Your task to perform on an android device: delete the emails in spam in the gmail app Image 0: 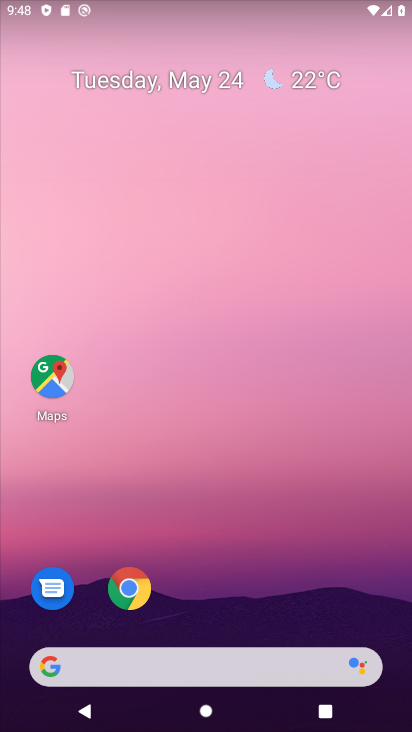
Step 0: drag from (185, 626) to (245, 31)
Your task to perform on an android device: delete the emails in spam in the gmail app Image 1: 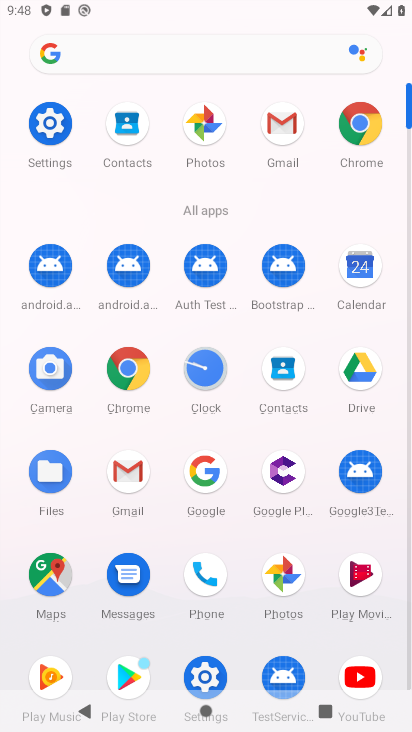
Step 1: click (277, 129)
Your task to perform on an android device: delete the emails in spam in the gmail app Image 2: 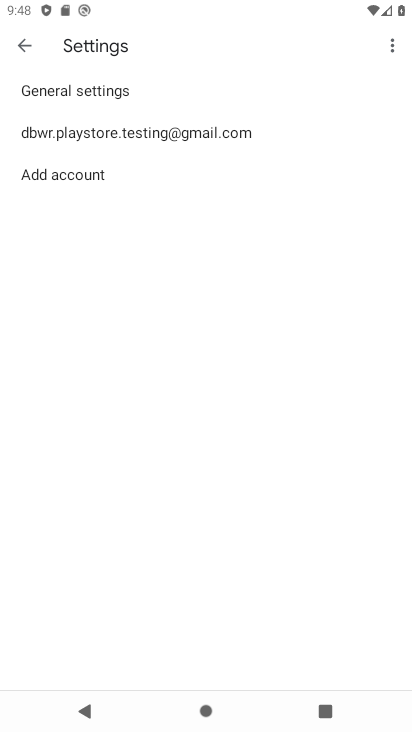
Step 2: click (278, 133)
Your task to perform on an android device: delete the emails in spam in the gmail app Image 3: 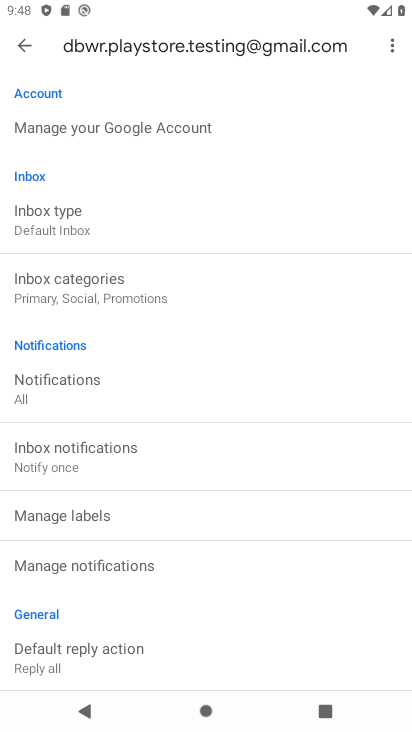
Step 3: click (17, 39)
Your task to perform on an android device: delete the emails in spam in the gmail app Image 4: 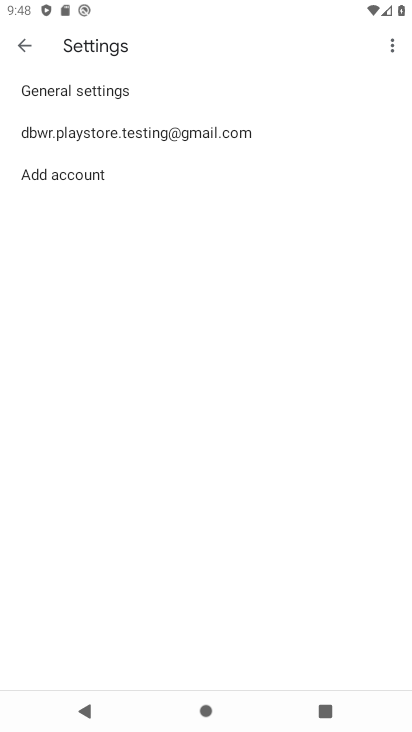
Step 4: click (17, 39)
Your task to perform on an android device: delete the emails in spam in the gmail app Image 5: 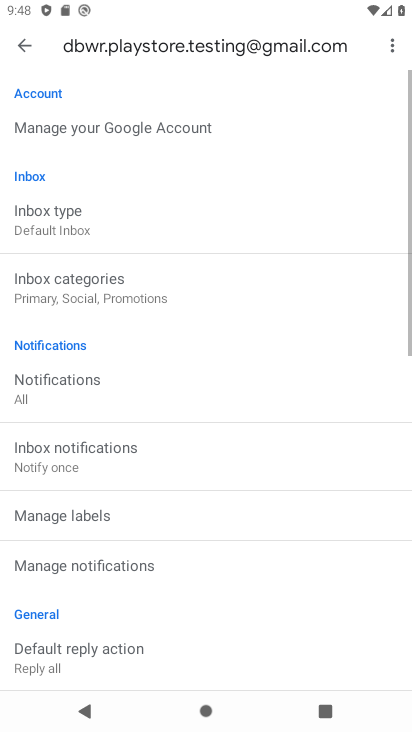
Step 5: click (28, 53)
Your task to perform on an android device: delete the emails in spam in the gmail app Image 6: 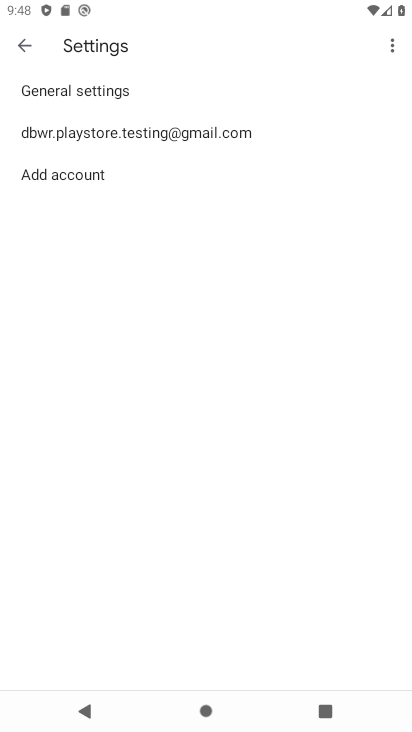
Step 6: click (28, 53)
Your task to perform on an android device: delete the emails in spam in the gmail app Image 7: 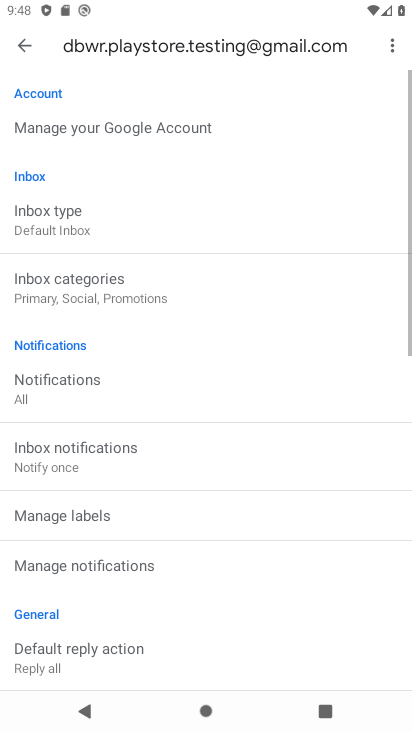
Step 7: click (28, 53)
Your task to perform on an android device: delete the emails in spam in the gmail app Image 8: 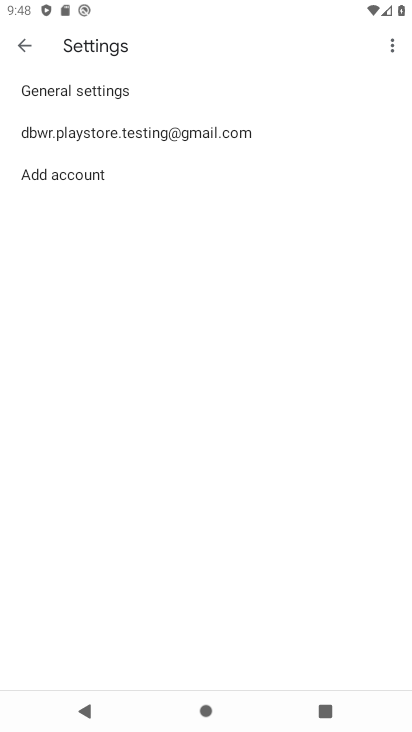
Step 8: click (28, 53)
Your task to perform on an android device: delete the emails in spam in the gmail app Image 9: 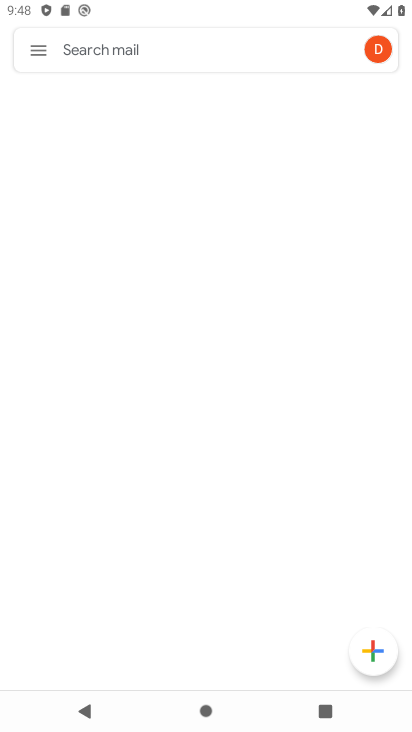
Step 9: click (28, 53)
Your task to perform on an android device: delete the emails in spam in the gmail app Image 10: 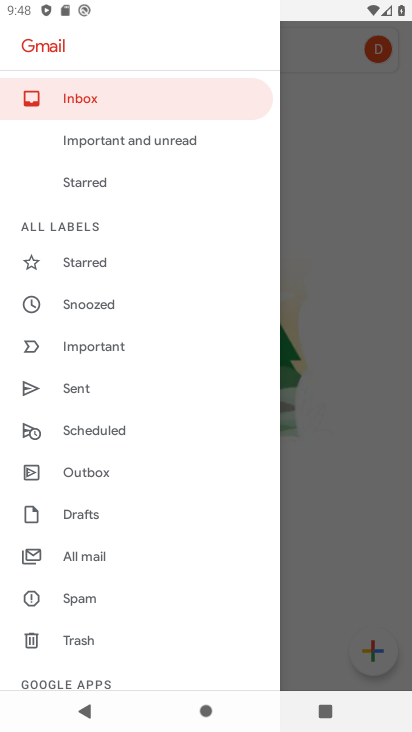
Step 10: click (89, 605)
Your task to perform on an android device: delete the emails in spam in the gmail app Image 11: 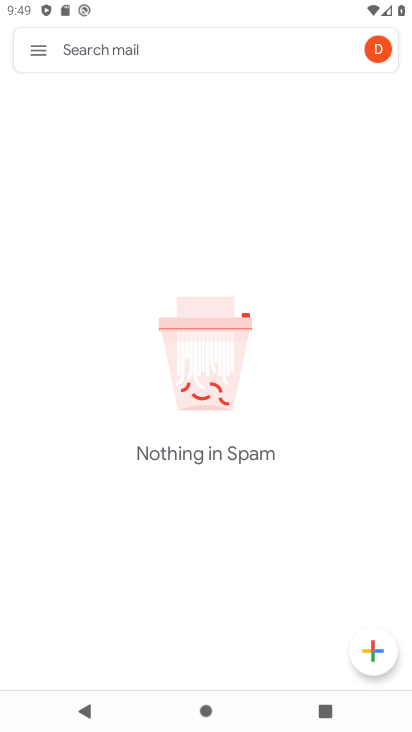
Step 11: task complete